Your task to perform on an android device: move a message to another label in the gmail app Image 0: 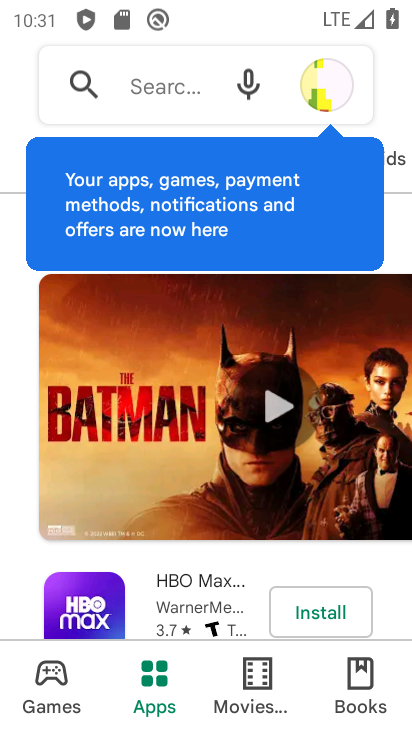
Step 0: press home button
Your task to perform on an android device: move a message to another label in the gmail app Image 1: 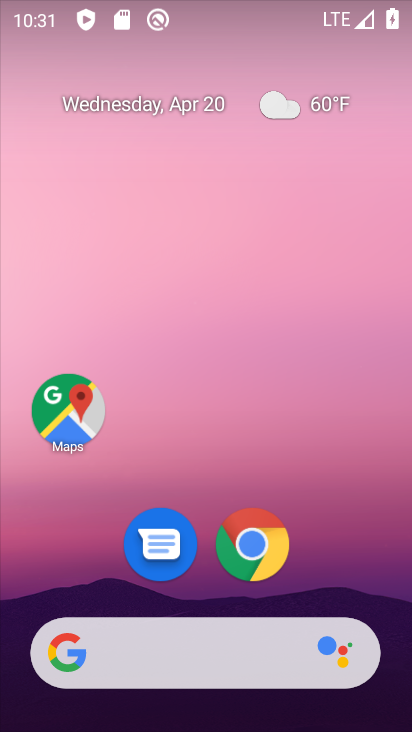
Step 1: drag from (361, 588) to (283, 255)
Your task to perform on an android device: move a message to another label in the gmail app Image 2: 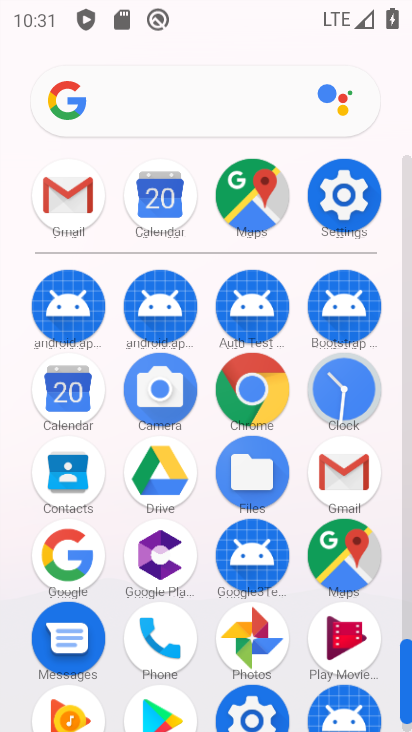
Step 2: click (74, 189)
Your task to perform on an android device: move a message to another label in the gmail app Image 3: 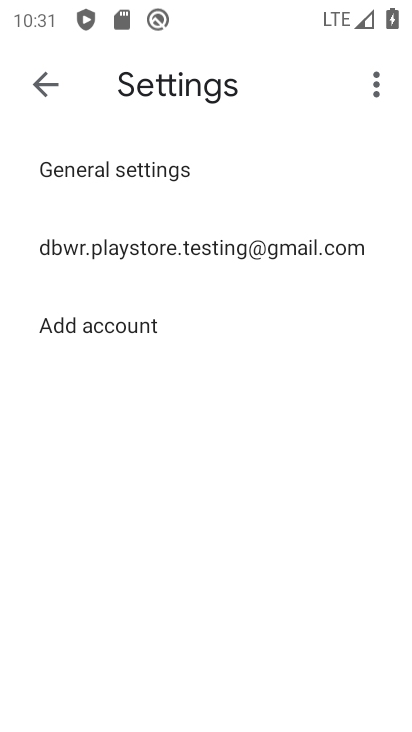
Step 3: click (36, 85)
Your task to perform on an android device: move a message to another label in the gmail app Image 4: 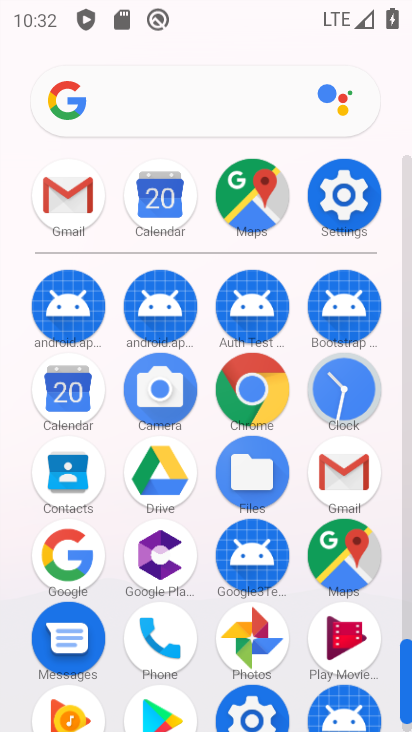
Step 4: click (58, 194)
Your task to perform on an android device: move a message to another label in the gmail app Image 5: 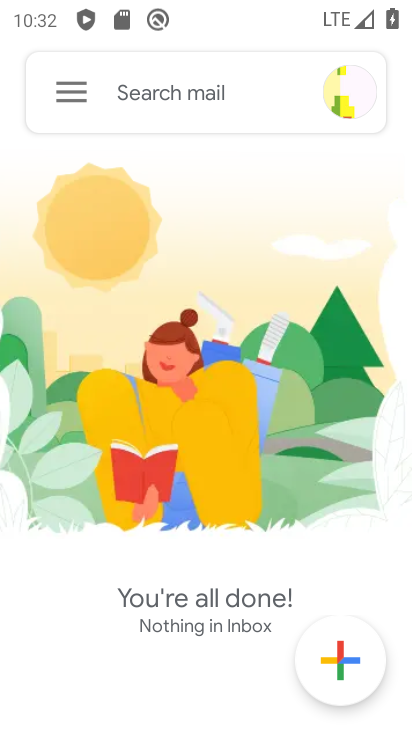
Step 5: click (61, 102)
Your task to perform on an android device: move a message to another label in the gmail app Image 6: 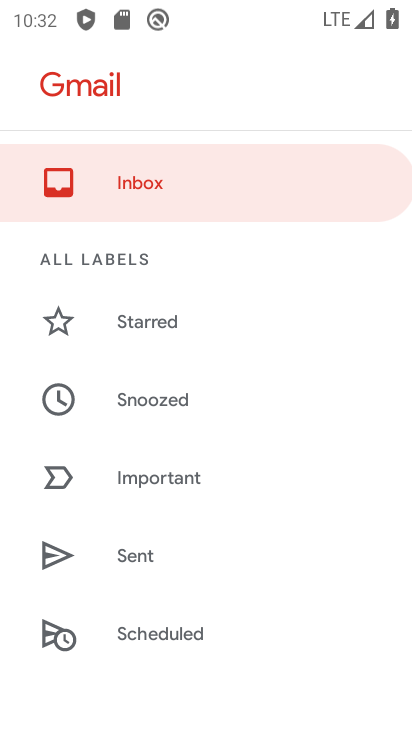
Step 6: drag from (196, 609) to (230, 222)
Your task to perform on an android device: move a message to another label in the gmail app Image 7: 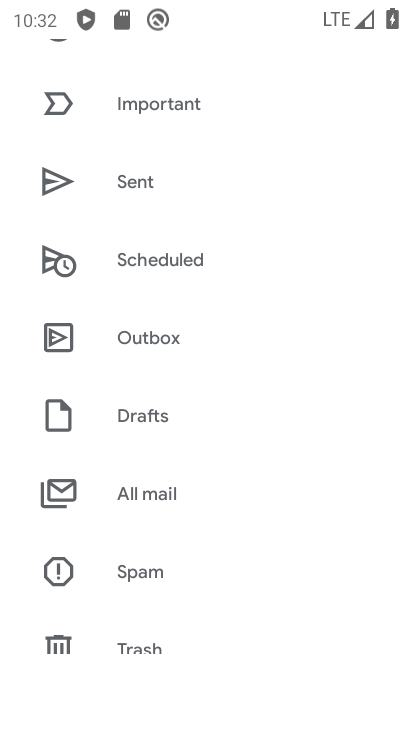
Step 7: click (274, 504)
Your task to perform on an android device: move a message to another label in the gmail app Image 8: 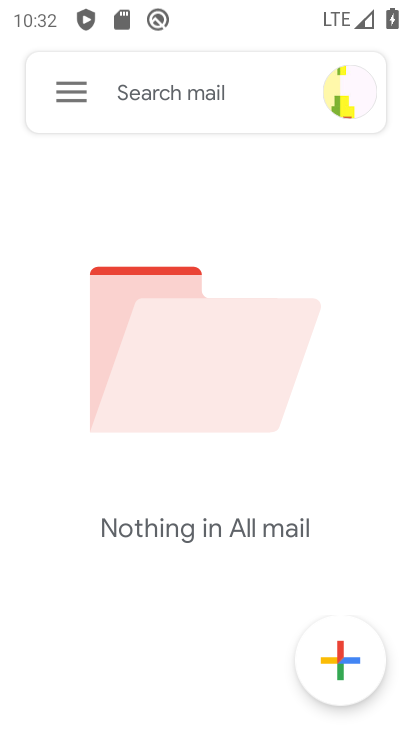
Step 8: task complete